Your task to perform on an android device: manage bookmarks in the chrome app Image 0: 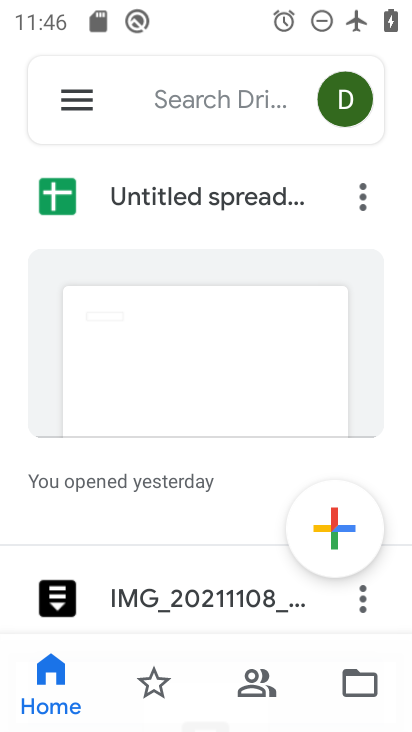
Step 0: press home button
Your task to perform on an android device: manage bookmarks in the chrome app Image 1: 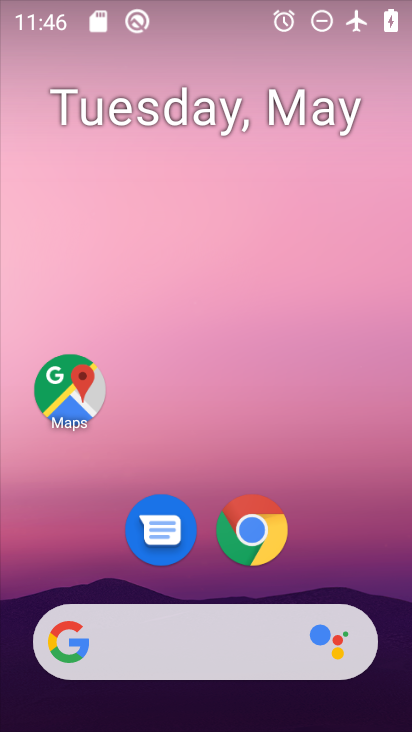
Step 1: drag from (347, 466) to (369, 61)
Your task to perform on an android device: manage bookmarks in the chrome app Image 2: 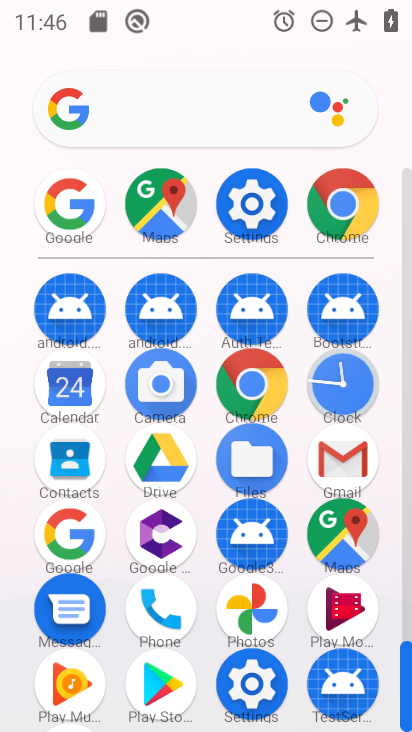
Step 2: click (354, 206)
Your task to perform on an android device: manage bookmarks in the chrome app Image 3: 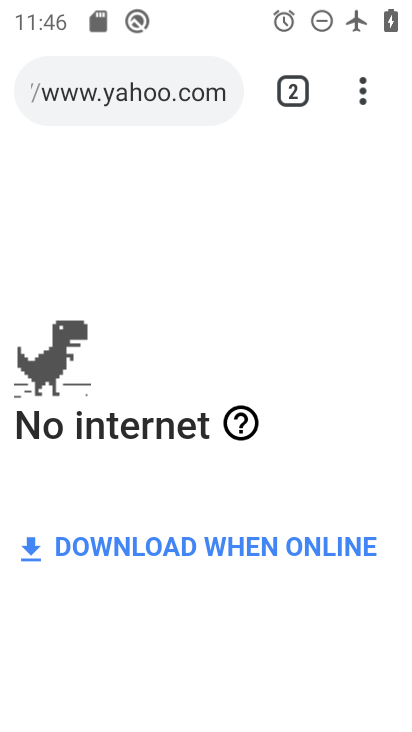
Step 3: click (365, 86)
Your task to perform on an android device: manage bookmarks in the chrome app Image 4: 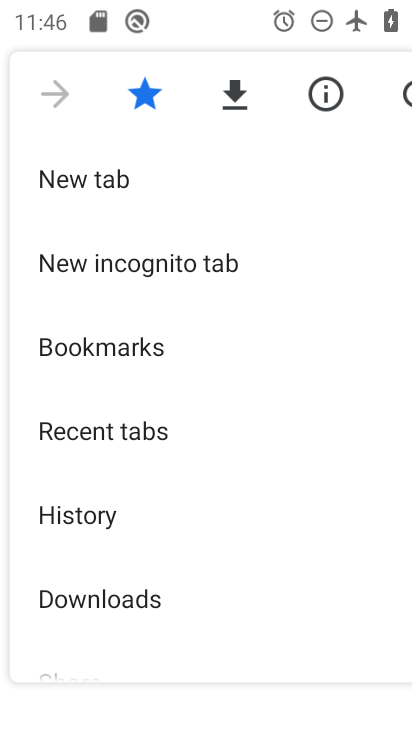
Step 4: drag from (144, 621) to (172, 385)
Your task to perform on an android device: manage bookmarks in the chrome app Image 5: 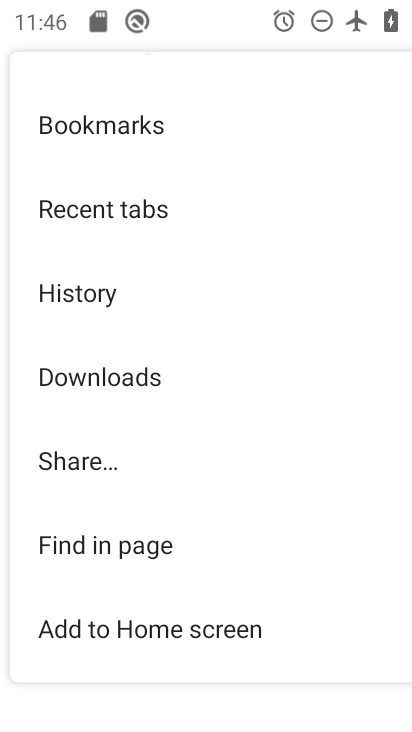
Step 5: click (124, 141)
Your task to perform on an android device: manage bookmarks in the chrome app Image 6: 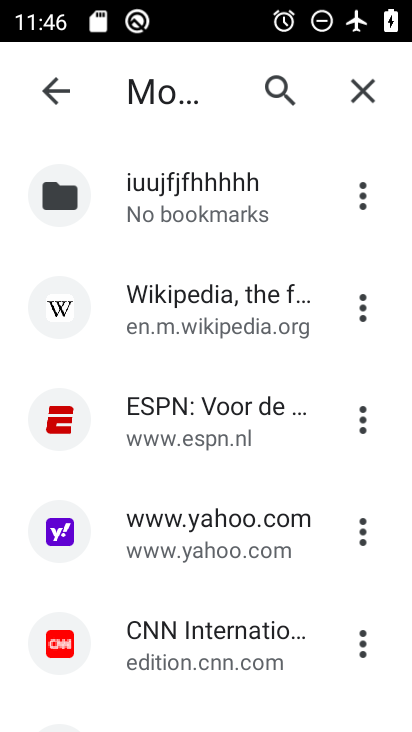
Step 6: click (364, 302)
Your task to perform on an android device: manage bookmarks in the chrome app Image 7: 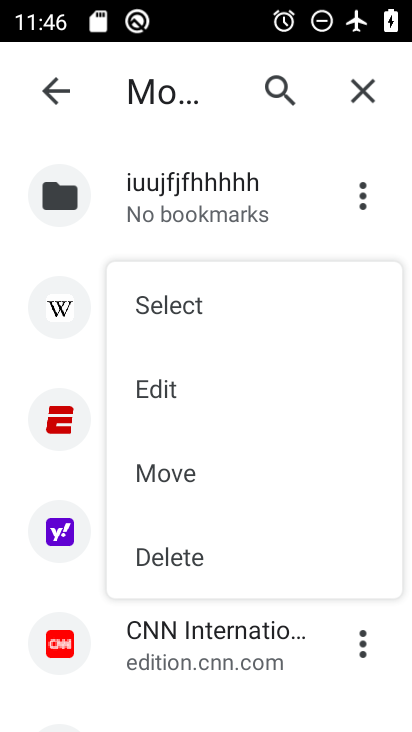
Step 7: click (172, 550)
Your task to perform on an android device: manage bookmarks in the chrome app Image 8: 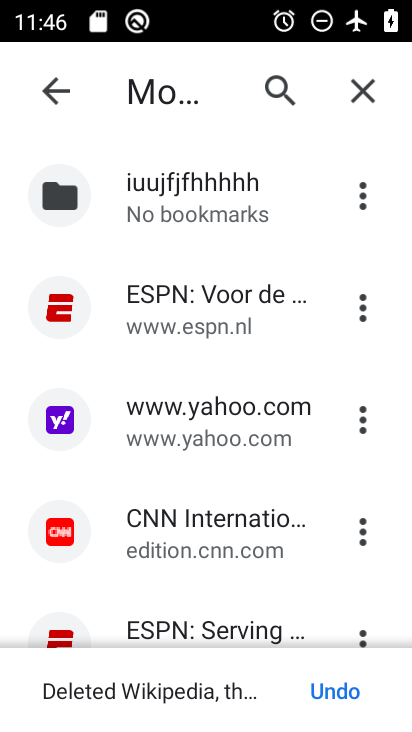
Step 8: task complete